Your task to perform on an android device: turn off location Image 0: 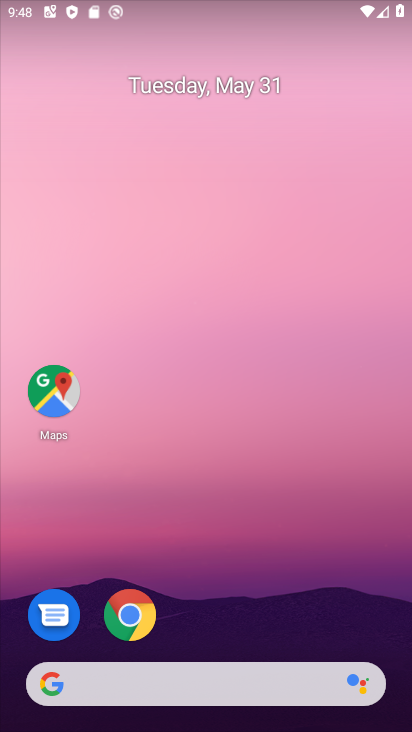
Step 0: drag from (312, 603) to (308, 118)
Your task to perform on an android device: turn off location Image 1: 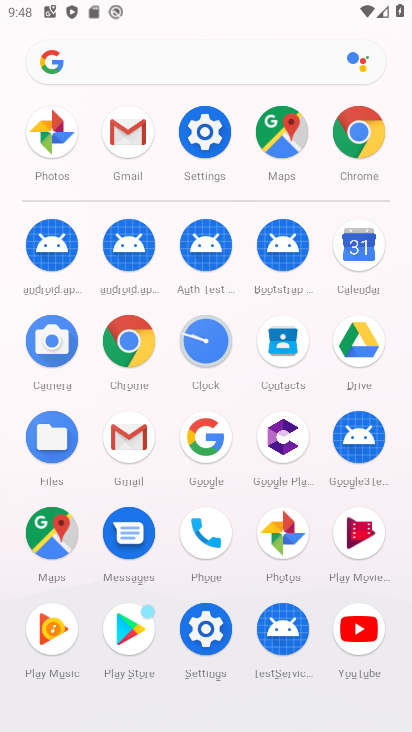
Step 1: click (200, 124)
Your task to perform on an android device: turn off location Image 2: 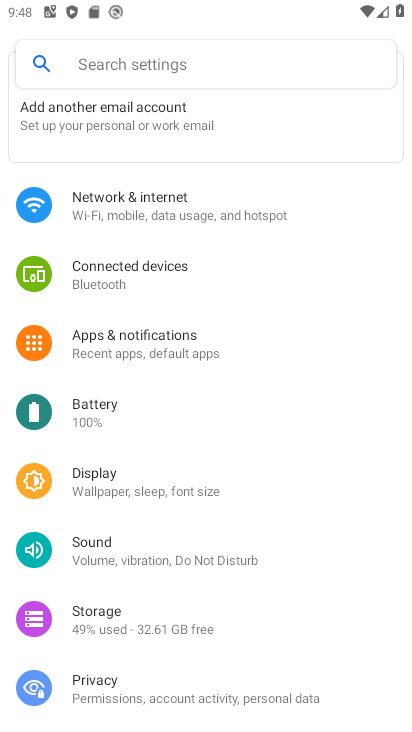
Step 2: drag from (193, 620) to (183, 266)
Your task to perform on an android device: turn off location Image 3: 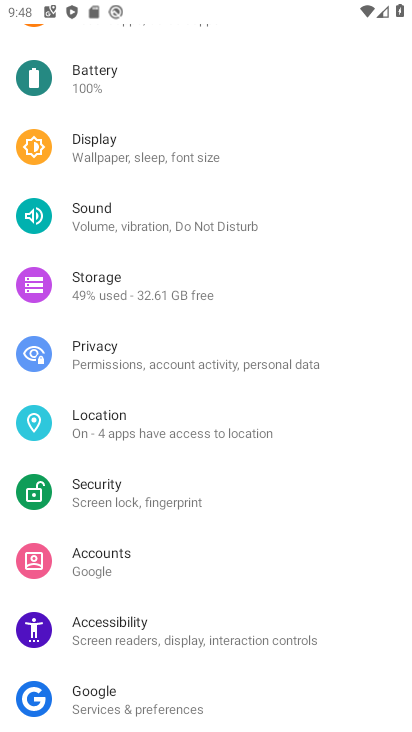
Step 3: click (117, 437)
Your task to perform on an android device: turn off location Image 4: 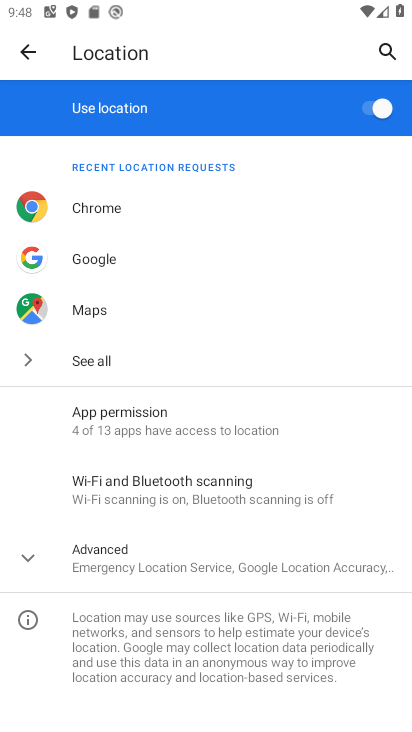
Step 4: click (382, 98)
Your task to perform on an android device: turn off location Image 5: 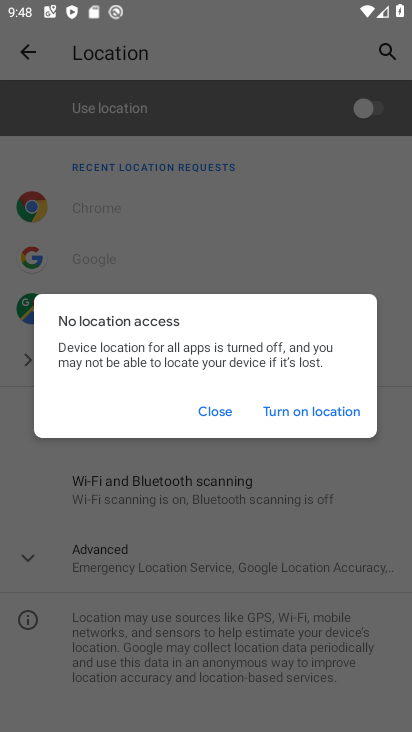
Step 5: task complete